Your task to perform on an android device: Install the Amazon app Image 0: 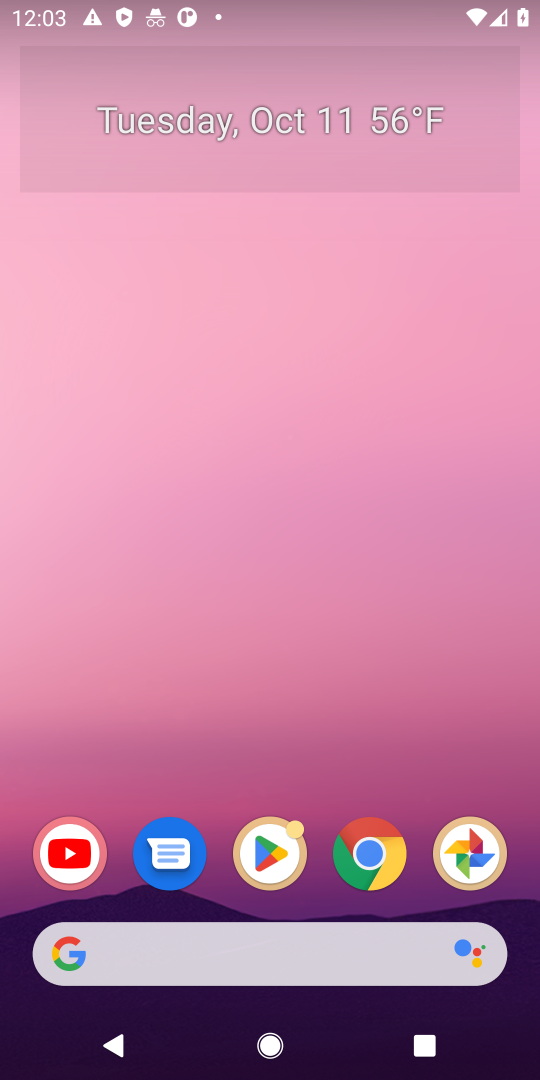
Step 0: drag from (391, 747) to (391, 0)
Your task to perform on an android device: Install the Amazon app Image 1: 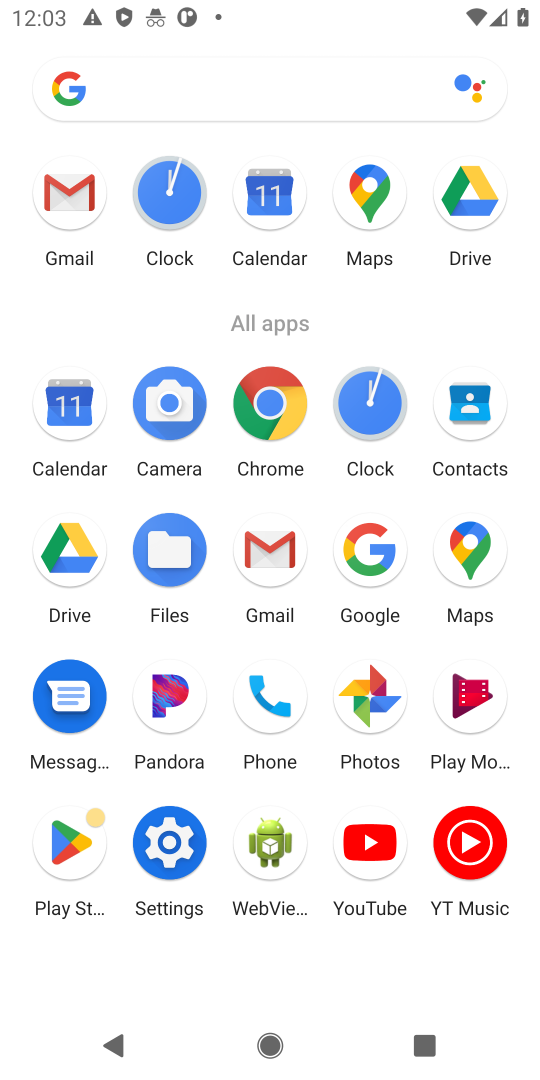
Step 1: click (274, 410)
Your task to perform on an android device: Install the Amazon app Image 2: 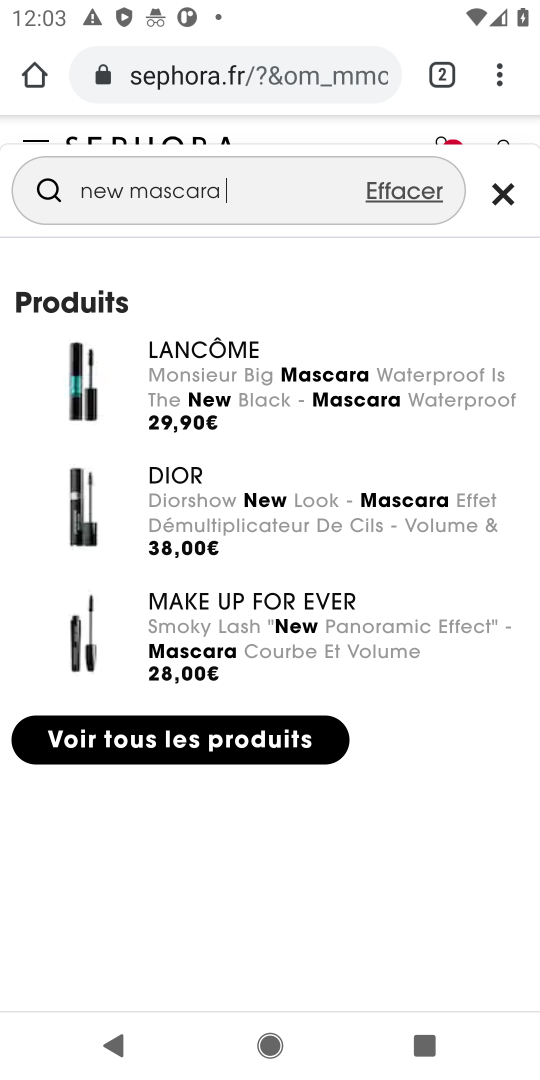
Step 2: click (257, 80)
Your task to perform on an android device: Install the Amazon app Image 3: 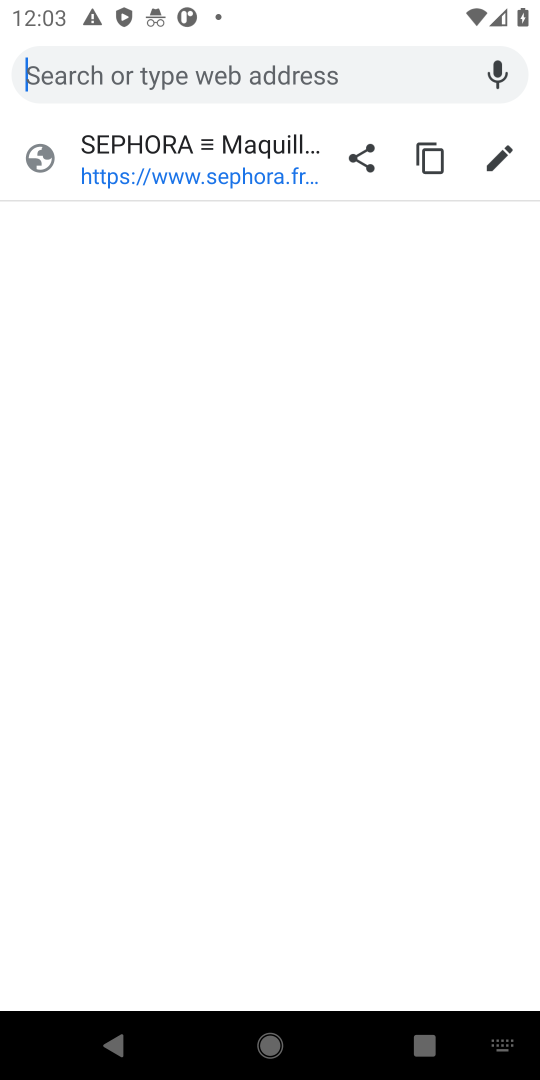
Step 3: press home button
Your task to perform on an android device: Install the Amazon app Image 4: 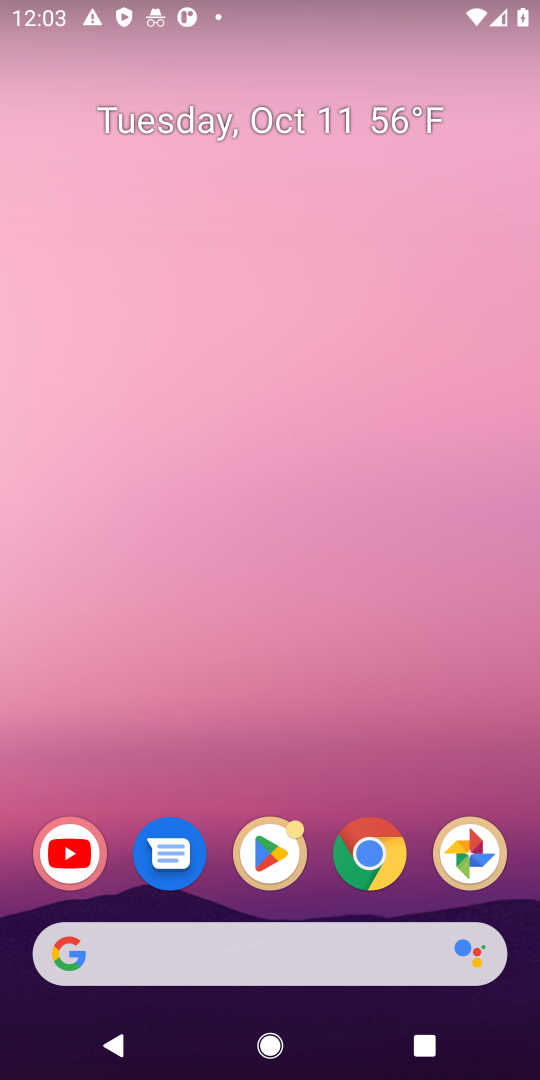
Step 4: drag from (317, 721) to (280, 54)
Your task to perform on an android device: Install the Amazon app Image 5: 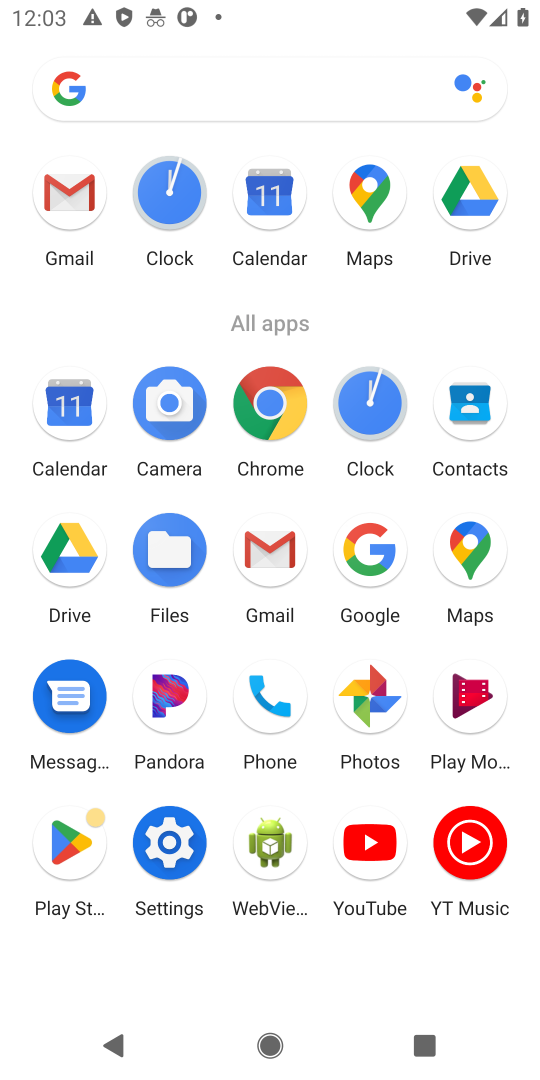
Step 5: click (73, 829)
Your task to perform on an android device: Install the Amazon app Image 6: 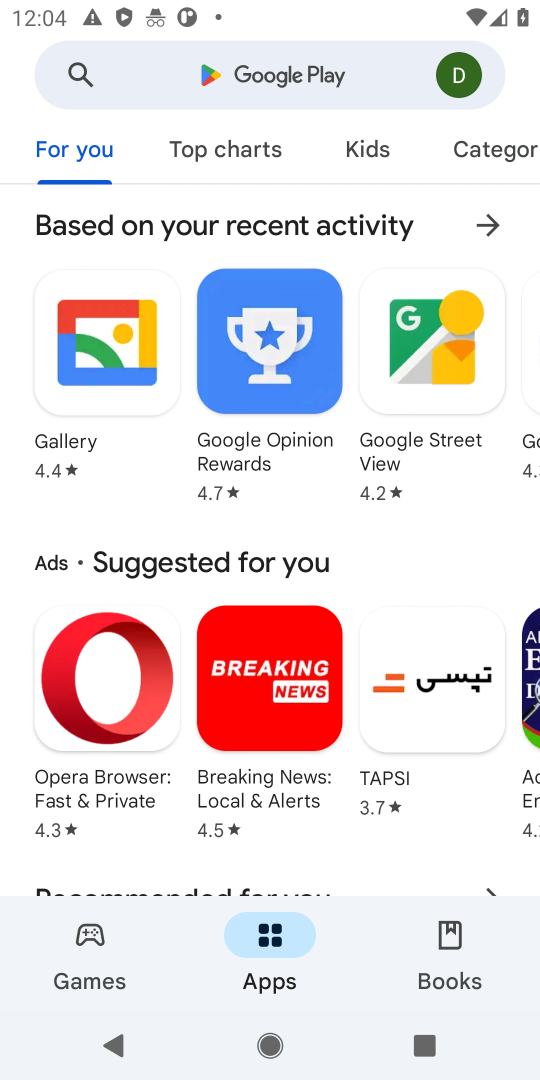
Step 6: click (197, 65)
Your task to perform on an android device: Install the Amazon app Image 7: 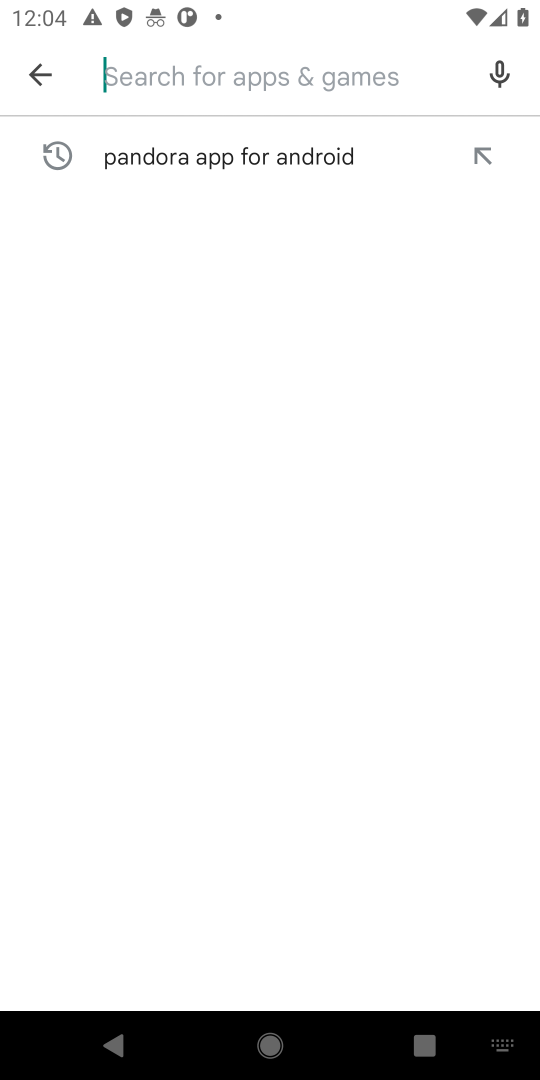
Step 7: type " Amazon app"
Your task to perform on an android device: Install the Amazon app Image 8: 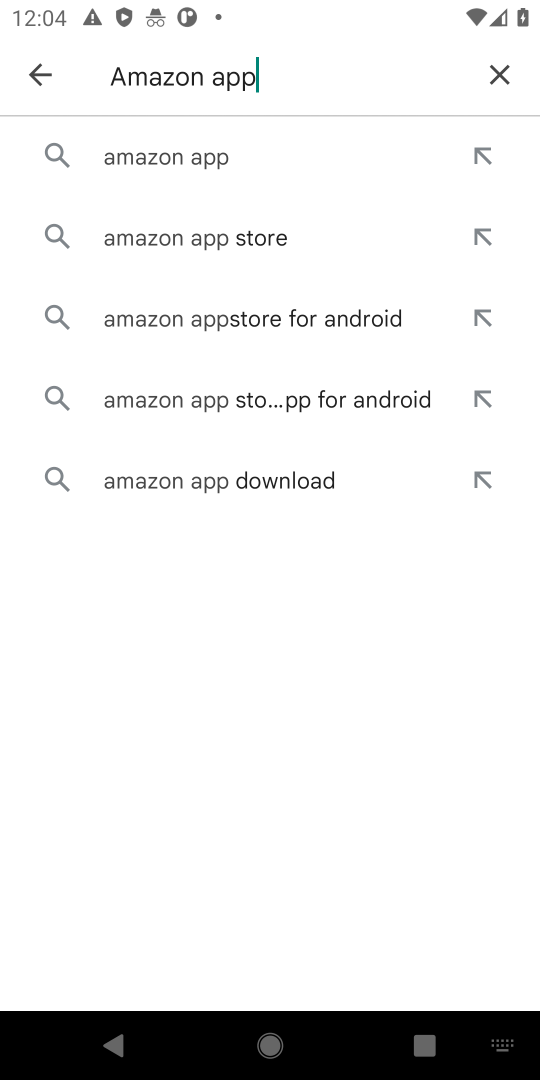
Step 8: click (204, 153)
Your task to perform on an android device: Install the Amazon app Image 9: 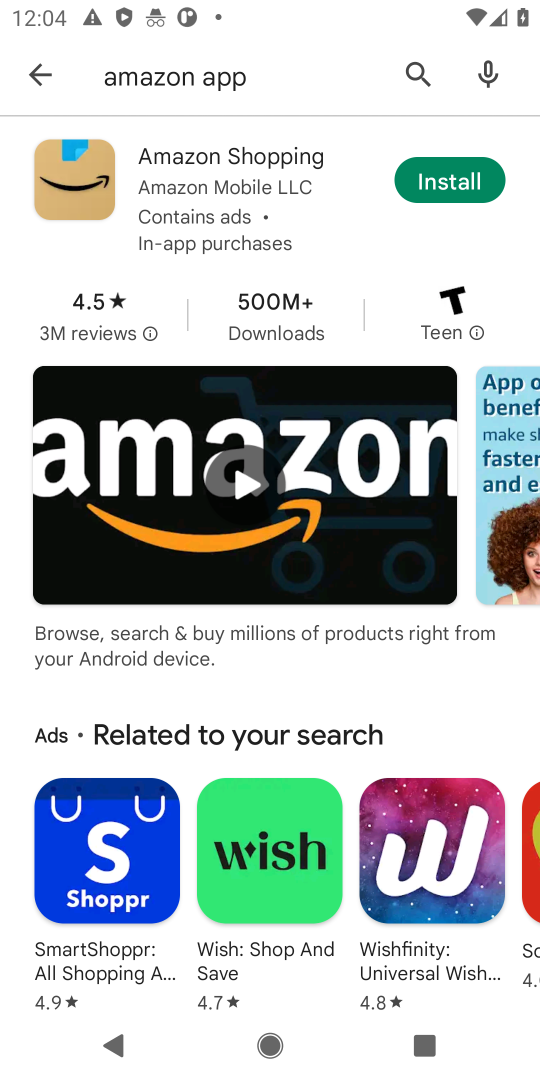
Step 9: click (469, 172)
Your task to perform on an android device: Install the Amazon app Image 10: 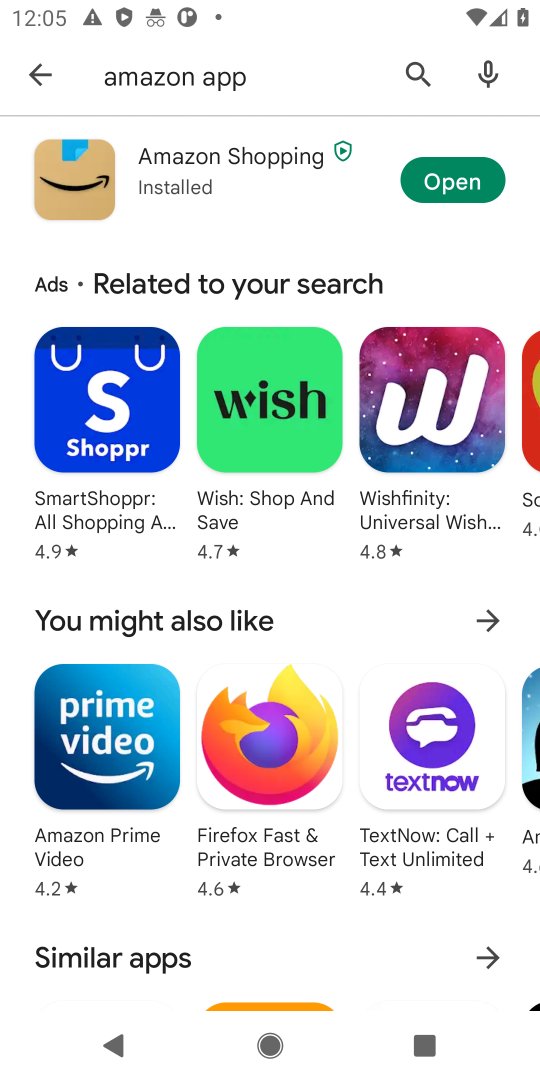
Step 10: click (472, 178)
Your task to perform on an android device: Install the Amazon app Image 11: 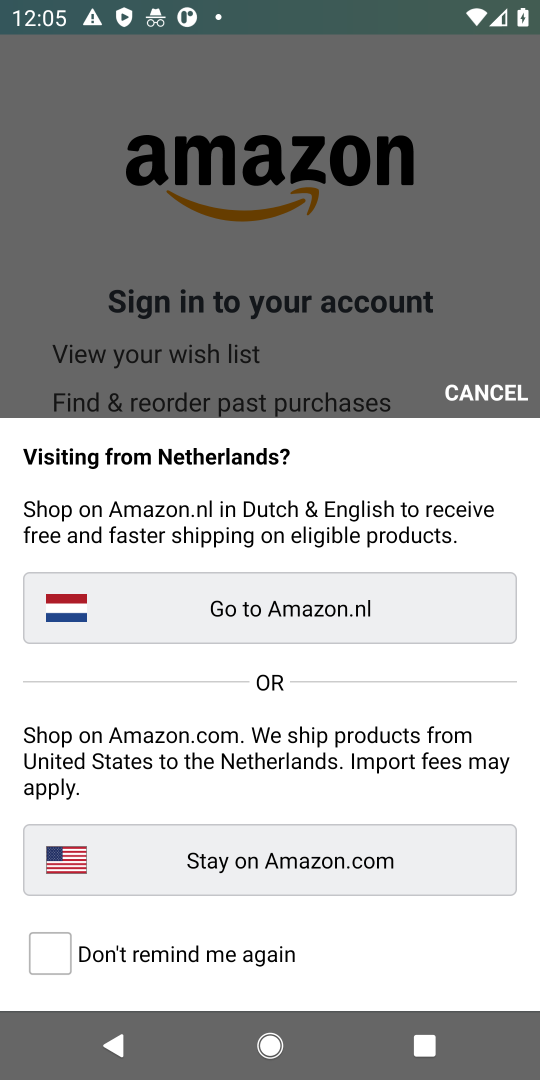
Step 11: task complete